Your task to perform on an android device: toggle show notifications on the lock screen Image 0: 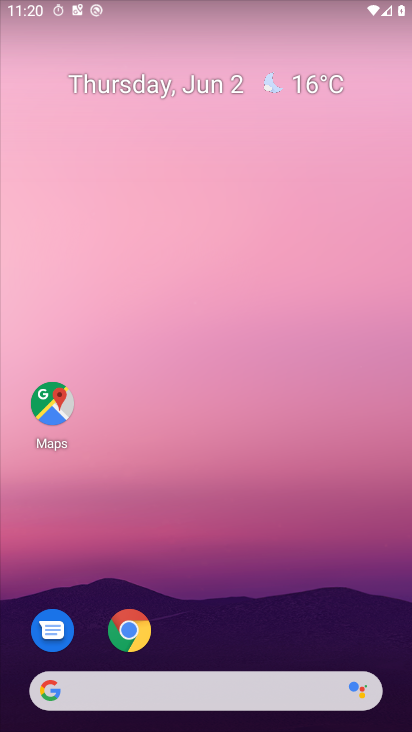
Step 0: drag from (257, 634) to (308, 1)
Your task to perform on an android device: toggle show notifications on the lock screen Image 1: 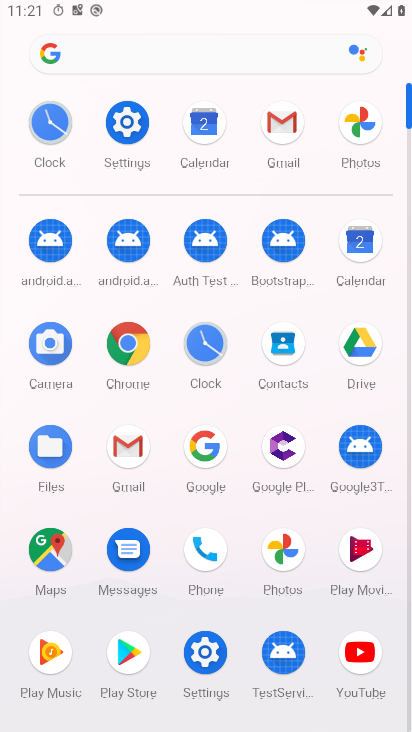
Step 1: click (137, 138)
Your task to perform on an android device: toggle show notifications on the lock screen Image 2: 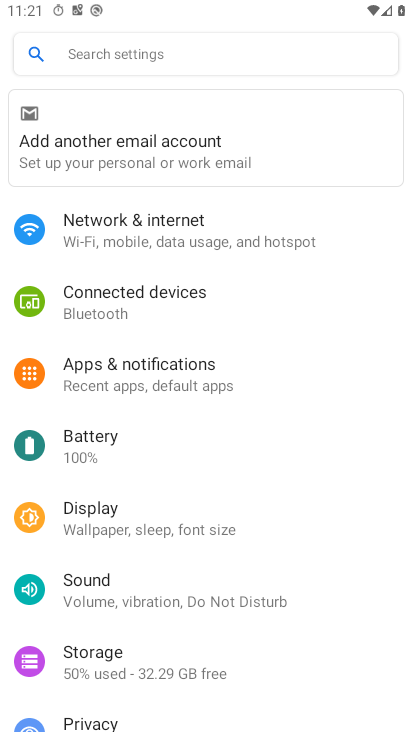
Step 2: click (183, 363)
Your task to perform on an android device: toggle show notifications on the lock screen Image 3: 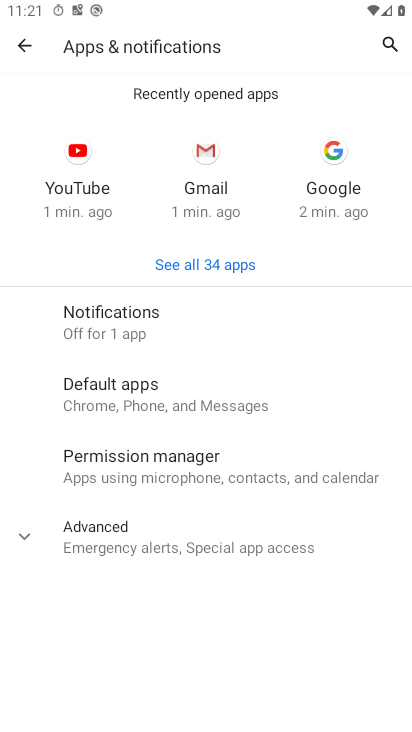
Step 3: click (130, 321)
Your task to perform on an android device: toggle show notifications on the lock screen Image 4: 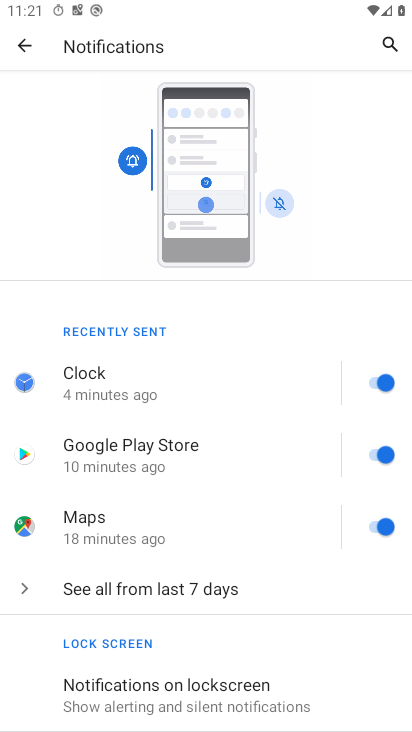
Step 4: click (176, 703)
Your task to perform on an android device: toggle show notifications on the lock screen Image 5: 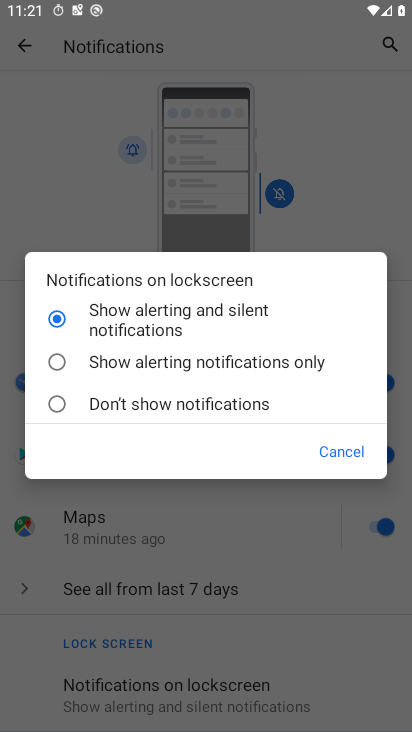
Step 5: click (120, 407)
Your task to perform on an android device: toggle show notifications on the lock screen Image 6: 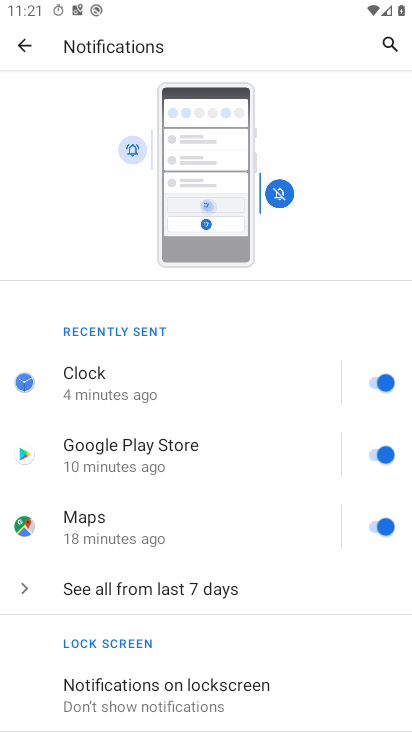
Step 6: task complete